Your task to perform on an android device: show emergency info Image 0: 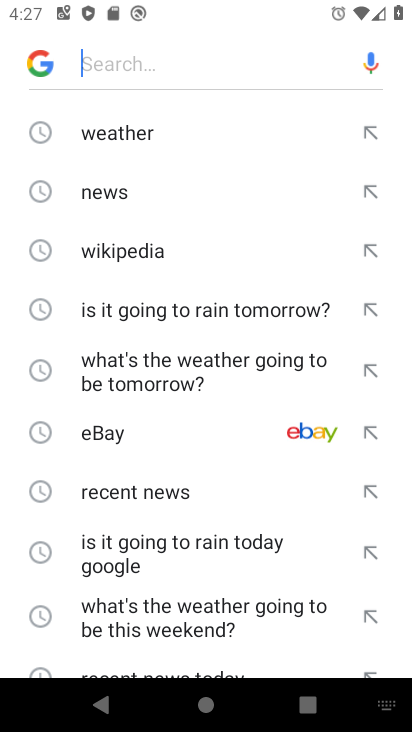
Step 0: press home button
Your task to perform on an android device: show emergency info Image 1: 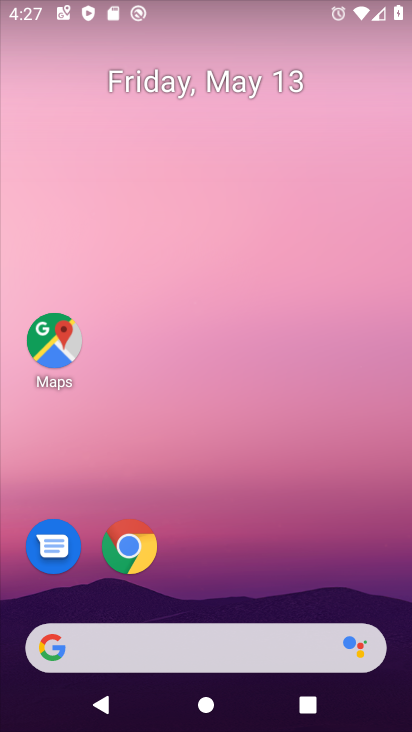
Step 1: drag from (207, 588) to (245, 2)
Your task to perform on an android device: show emergency info Image 2: 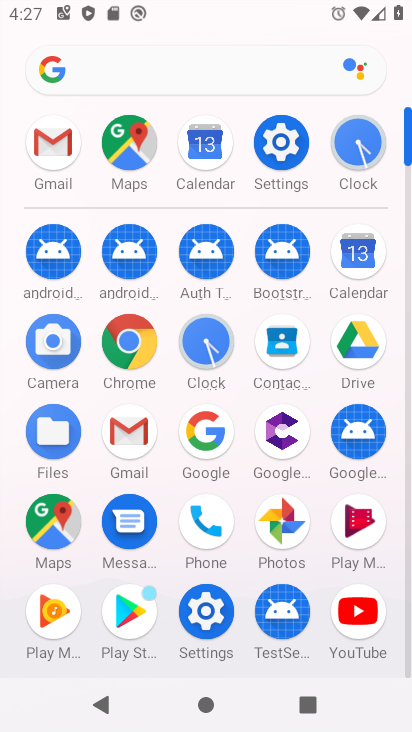
Step 2: click (287, 162)
Your task to perform on an android device: show emergency info Image 3: 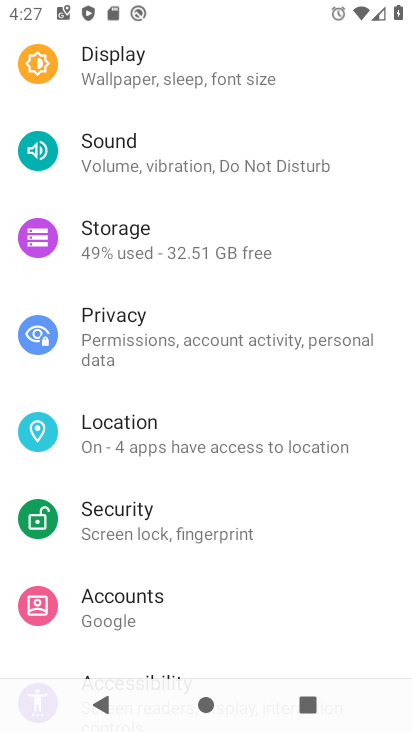
Step 3: drag from (127, 561) to (290, 1)
Your task to perform on an android device: show emergency info Image 4: 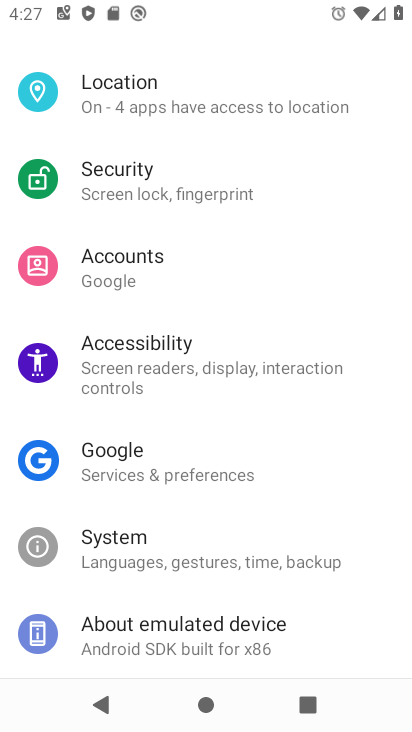
Step 4: click (167, 642)
Your task to perform on an android device: show emergency info Image 5: 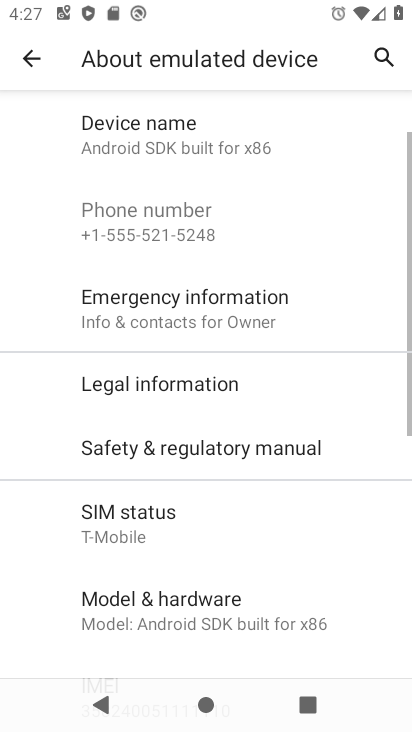
Step 5: click (163, 308)
Your task to perform on an android device: show emergency info Image 6: 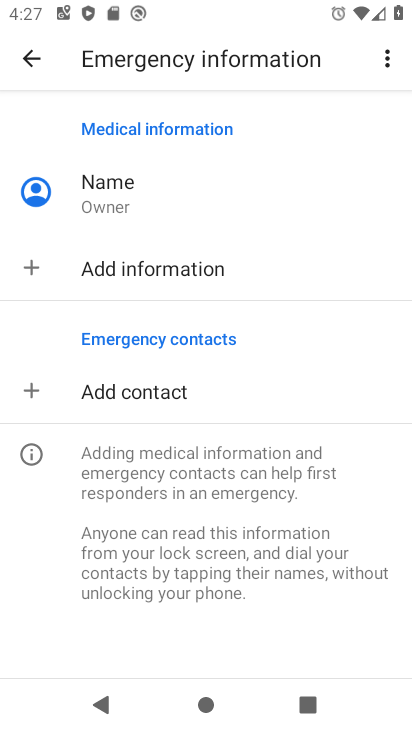
Step 6: task complete